Your task to perform on an android device: Open notification settings Image 0: 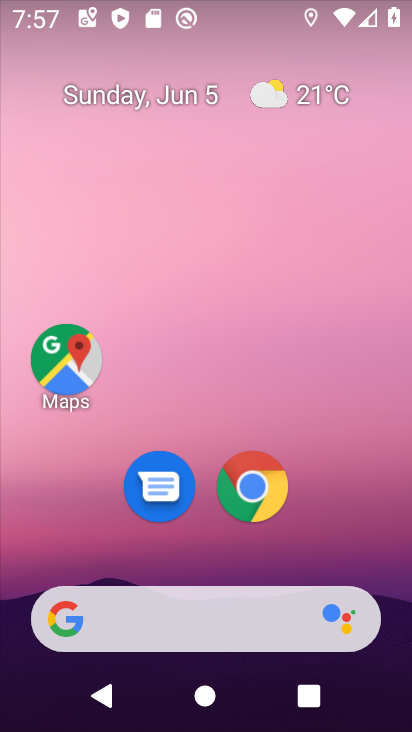
Step 0: drag from (180, 458) to (243, 39)
Your task to perform on an android device: Open notification settings Image 1: 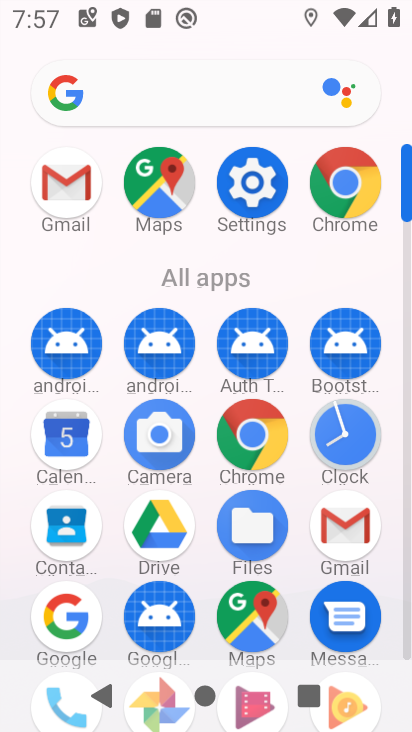
Step 1: click (264, 198)
Your task to perform on an android device: Open notification settings Image 2: 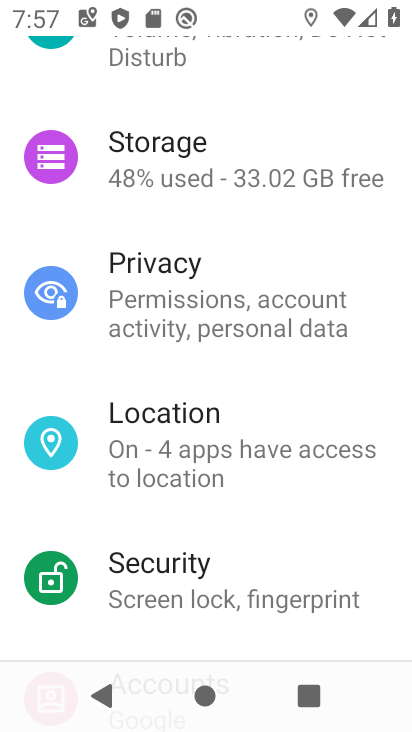
Step 2: drag from (262, 203) to (186, 603)
Your task to perform on an android device: Open notification settings Image 3: 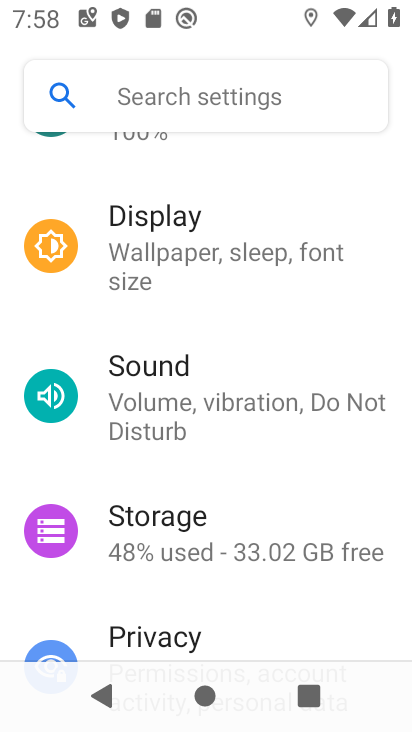
Step 3: drag from (225, 235) to (207, 644)
Your task to perform on an android device: Open notification settings Image 4: 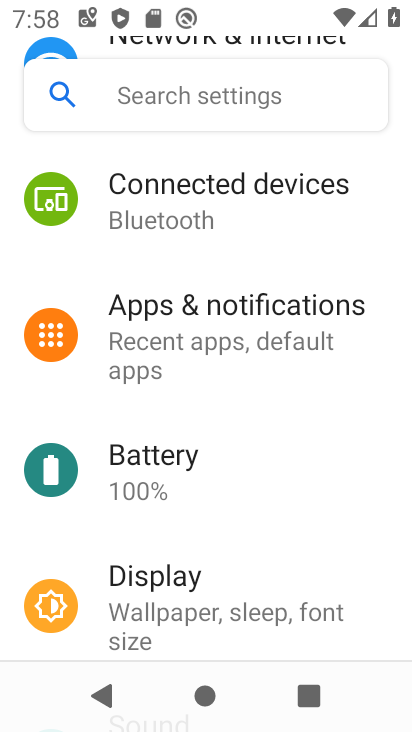
Step 4: click (256, 287)
Your task to perform on an android device: Open notification settings Image 5: 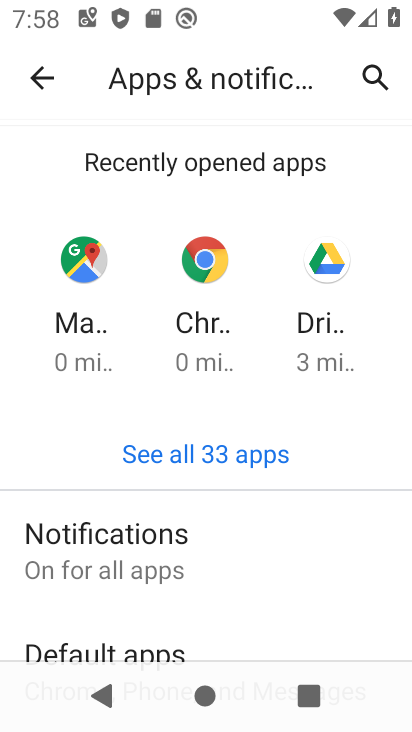
Step 5: click (188, 542)
Your task to perform on an android device: Open notification settings Image 6: 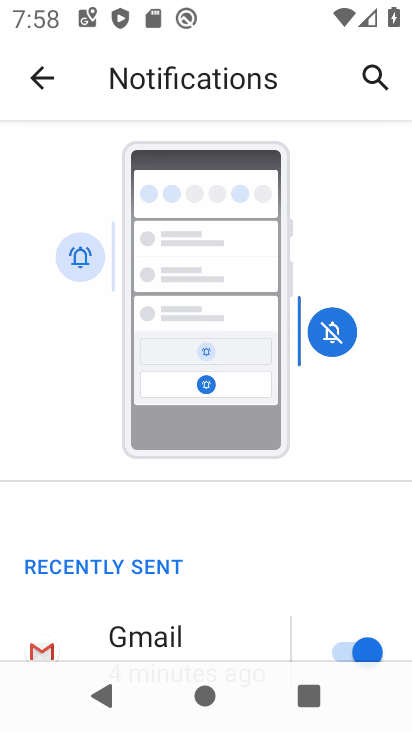
Step 6: task complete